Your task to perform on an android device: change notification settings in the gmail app Image 0: 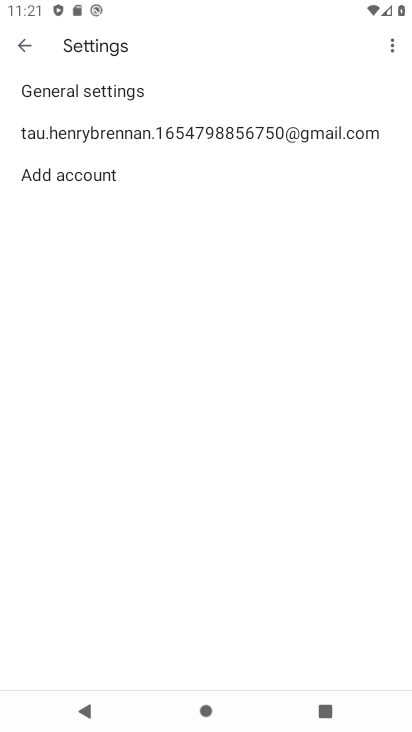
Step 0: press home button
Your task to perform on an android device: change notification settings in the gmail app Image 1: 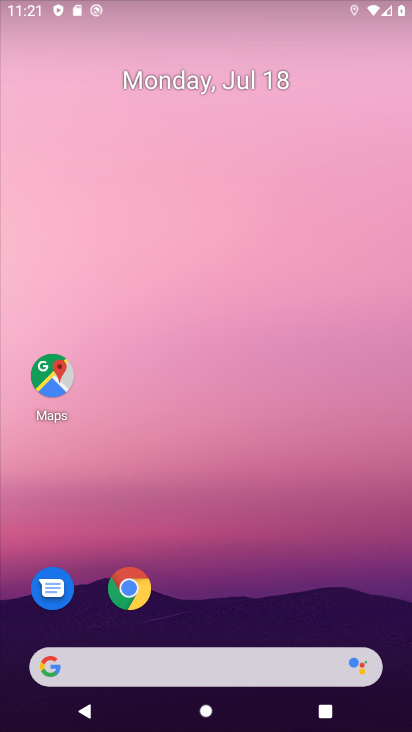
Step 1: drag from (314, 531) to (295, 113)
Your task to perform on an android device: change notification settings in the gmail app Image 2: 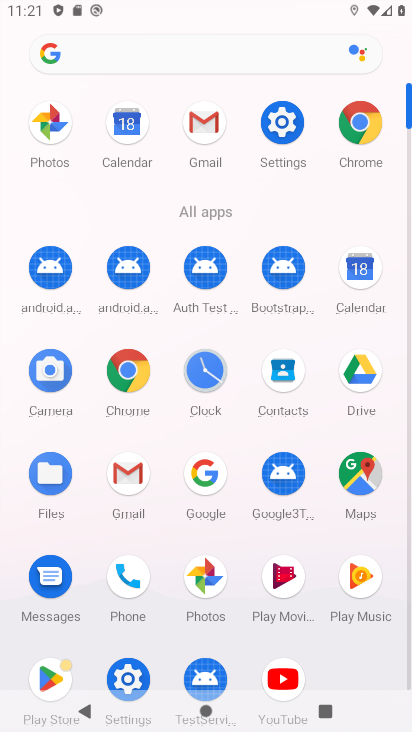
Step 2: click (203, 129)
Your task to perform on an android device: change notification settings in the gmail app Image 3: 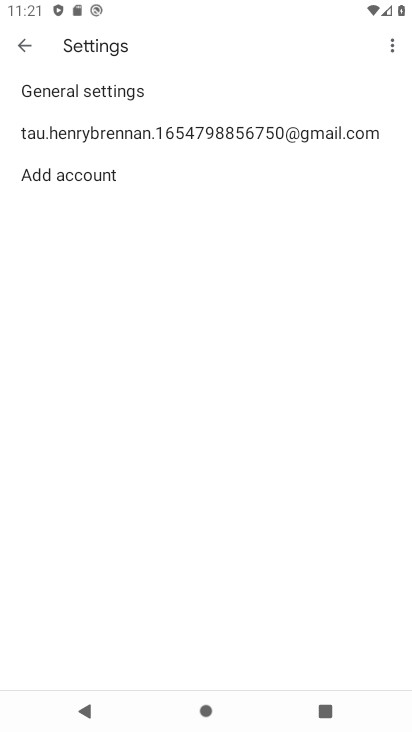
Step 3: click (147, 142)
Your task to perform on an android device: change notification settings in the gmail app Image 4: 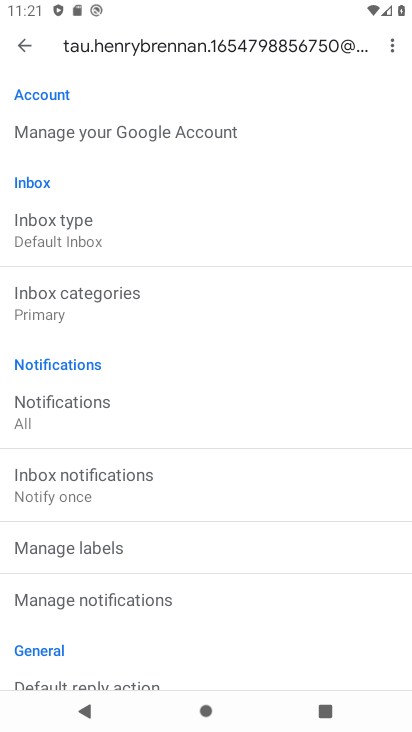
Step 4: click (89, 415)
Your task to perform on an android device: change notification settings in the gmail app Image 5: 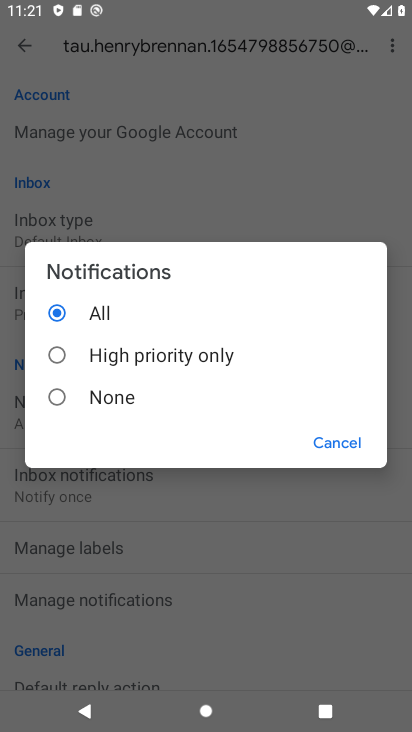
Step 5: click (51, 356)
Your task to perform on an android device: change notification settings in the gmail app Image 6: 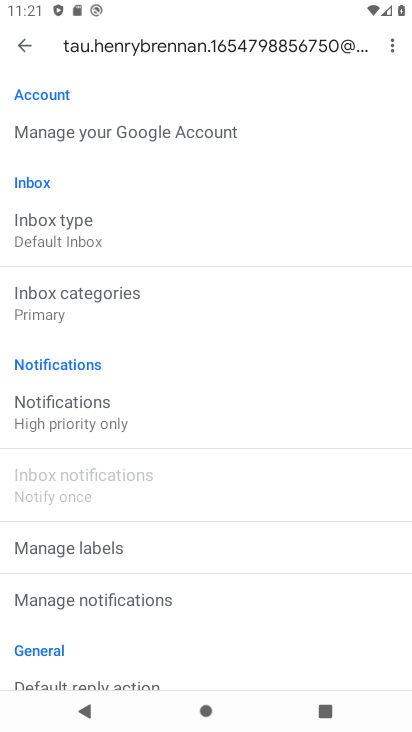
Step 6: task complete